Your task to perform on an android device: Go to privacy settings Image 0: 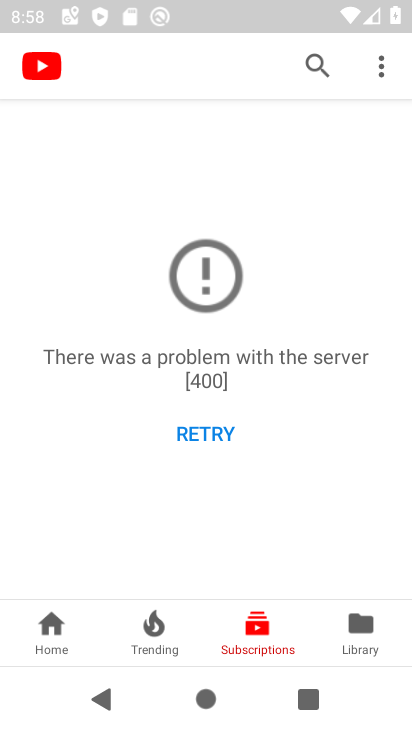
Step 0: press home button
Your task to perform on an android device: Go to privacy settings Image 1: 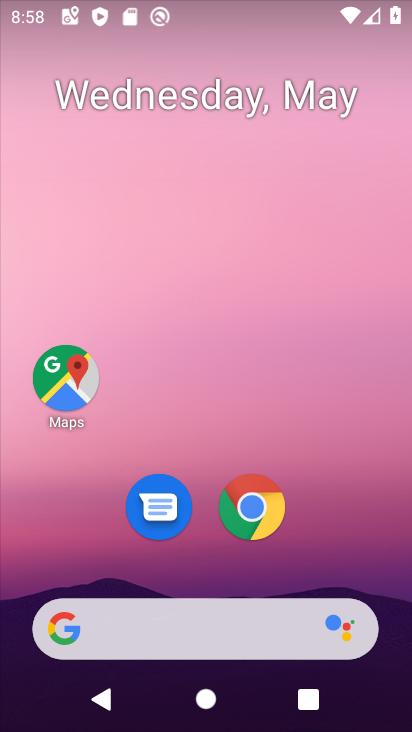
Step 1: drag from (351, 517) to (253, 134)
Your task to perform on an android device: Go to privacy settings Image 2: 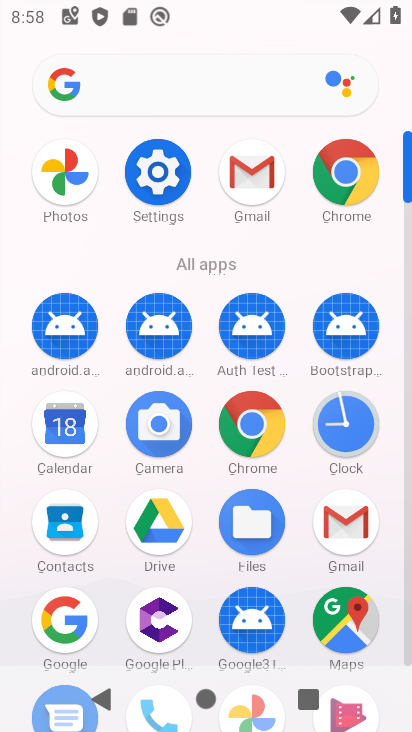
Step 2: click (169, 164)
Your task to perform on an android device: Go to privacy settings Image 3: 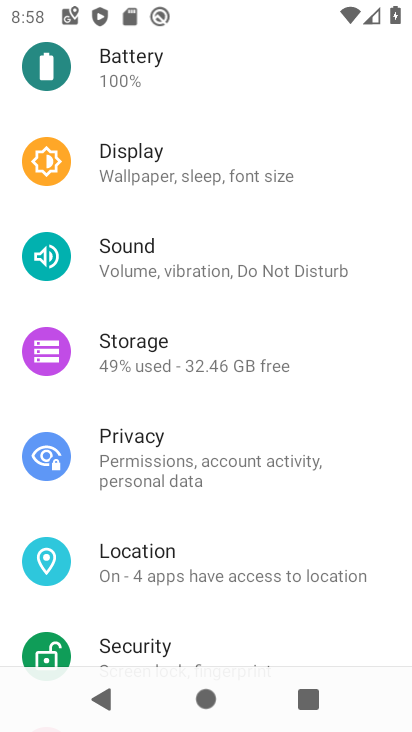
Step 3: click (227, 490)
Your task to perform on an android device: Go to privacy settings Image 4: 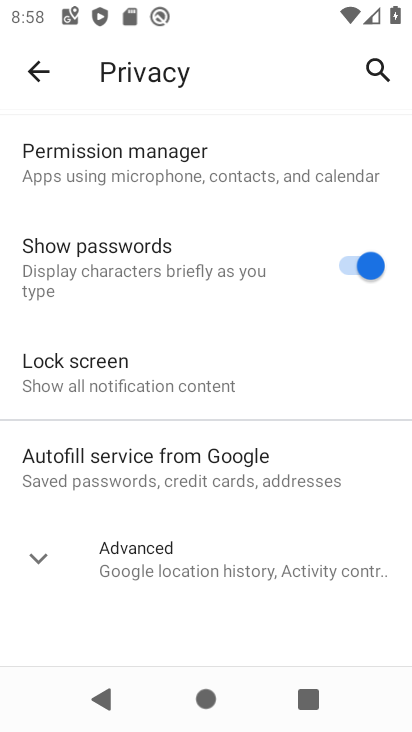
Step 4: task complete